Your task to perform on an android device: check google app version Image 0: 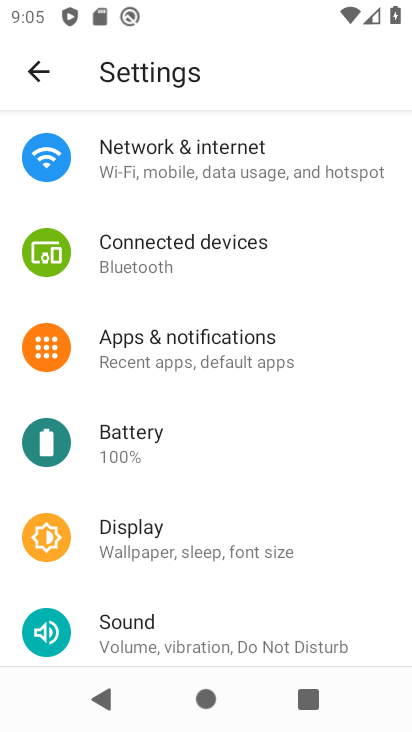
Step 0: drag from (237, 592) to (248, 256)
Your task to perform on an android device: check google app version Image 1: 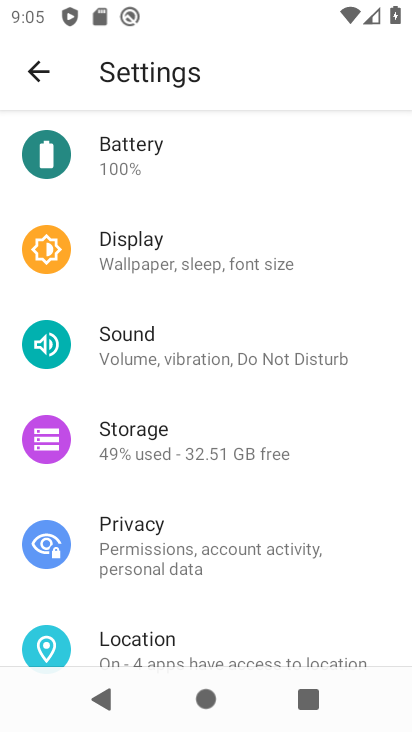
Step 1: drag from (256, 600) to (283, 187)
Your task to perform on an android device: check google app version Image 2: 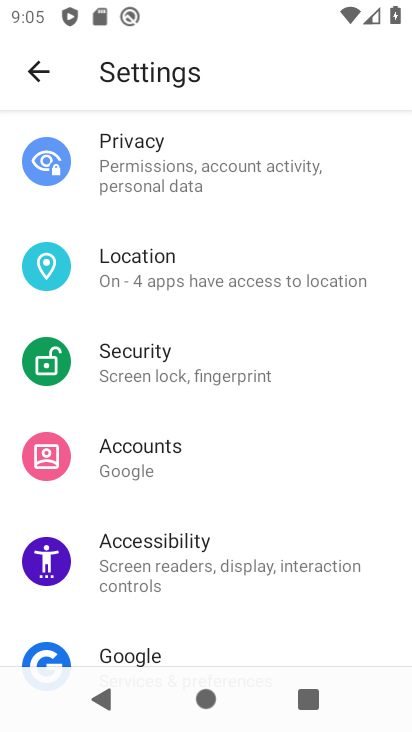
Step 2: drag from (175, 600) to (174, 276)
Your task to perform on an android device: check google app version Image 3: 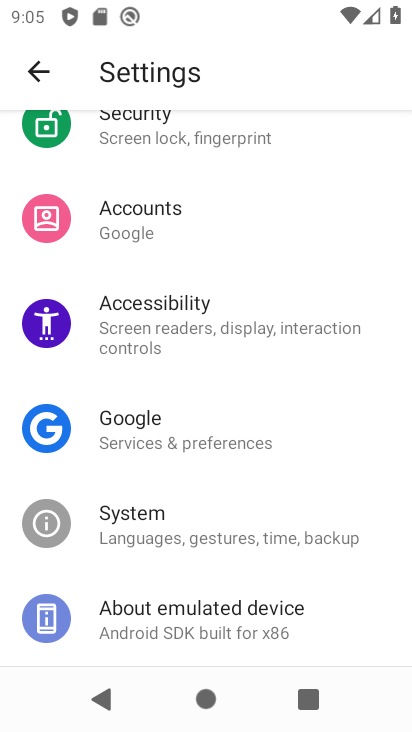
Step 3: press home button
Your task to perform on an android device: check google app version Image 4: 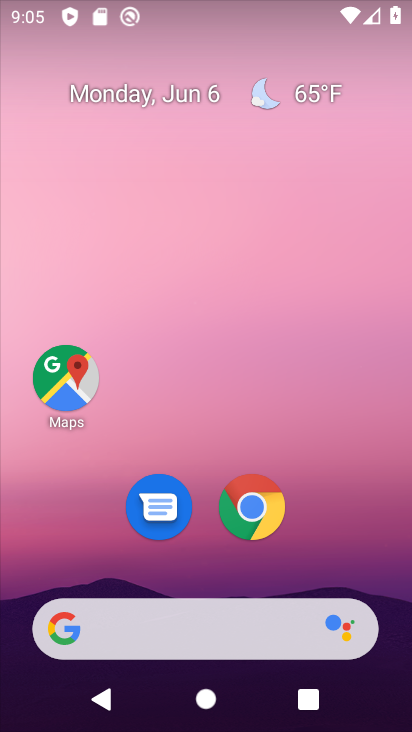
Step 4: drag from (202, 544) to (213, 226)
Your task to perform on an android device: check google app version Image 5: 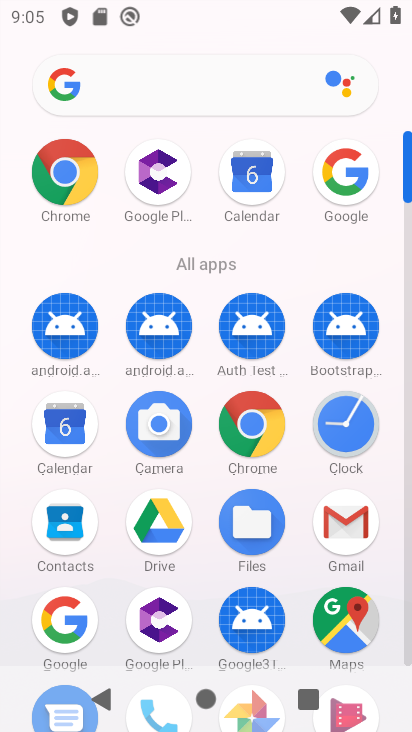
Step 5: click (63, 615)
Your task to perform on an android device: check google app version Image 6: 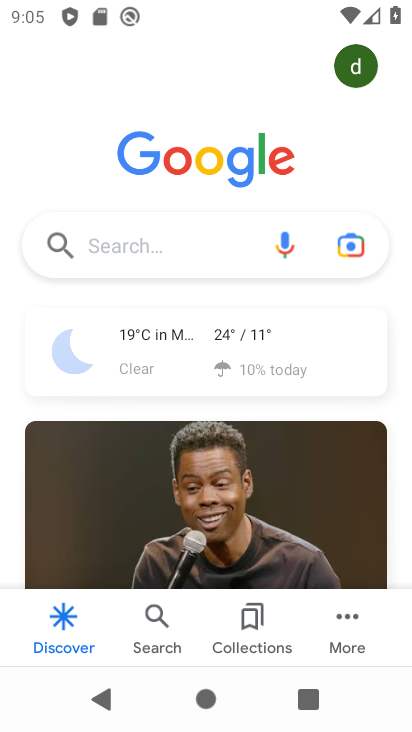
Step 6: click (321, 619)
Your task to perform on an android device: check google app version Image 7: 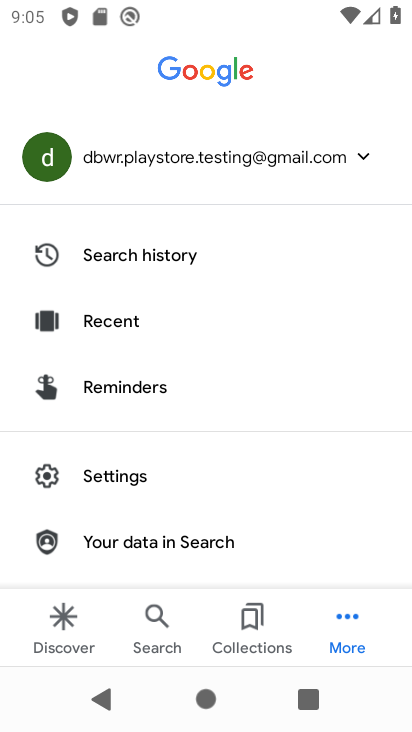
Step 7: drag from (219, 504) to (232, 317)
Your task to perform on an android device: check google app version Image 8: 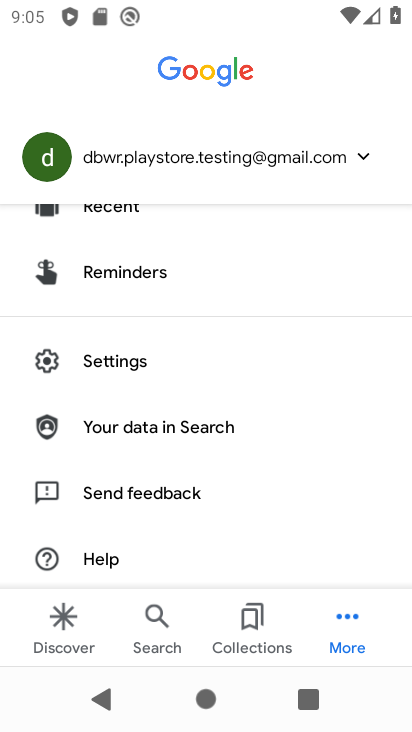
Step 8: click (140, 466)
Your task to perform on an android device: check google app version Image 9: 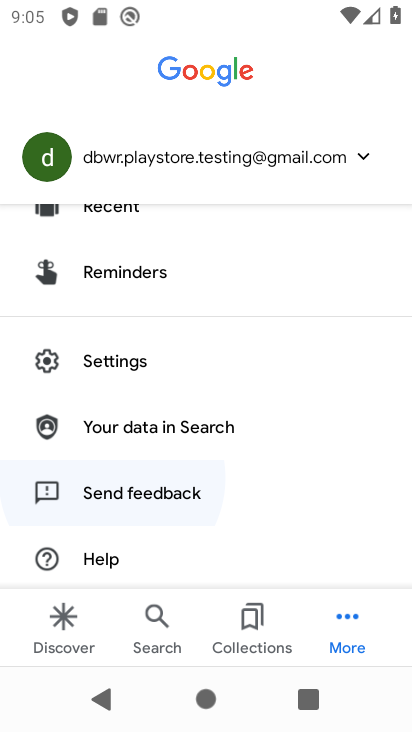
Step 9: drag from (141, 465) to (182, 210)
Your task to perform on an android device: check google app version Image 10: 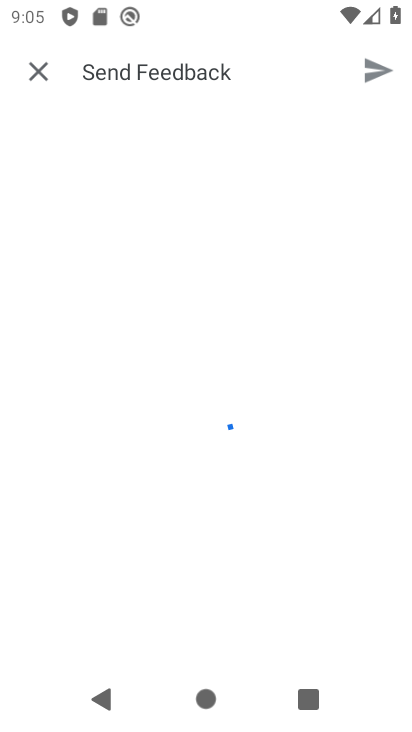
Step 10: click (41, 71)
Your task to perform on an android device: check google app version Image 11: 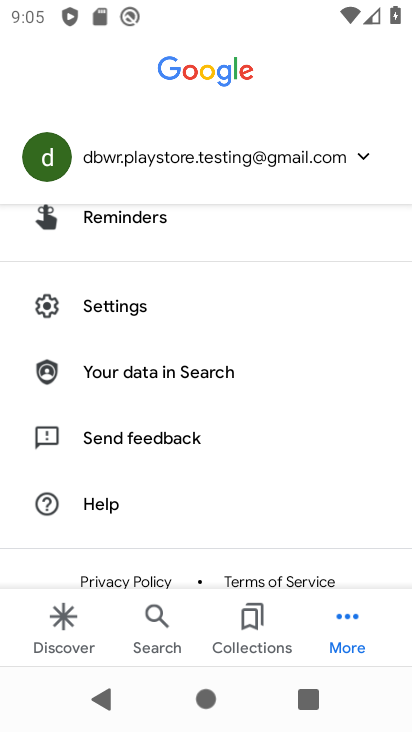
Step 11: drag from (149, 536) to (188, 312)
Your task to perform on an android device: check google app version Image 12: 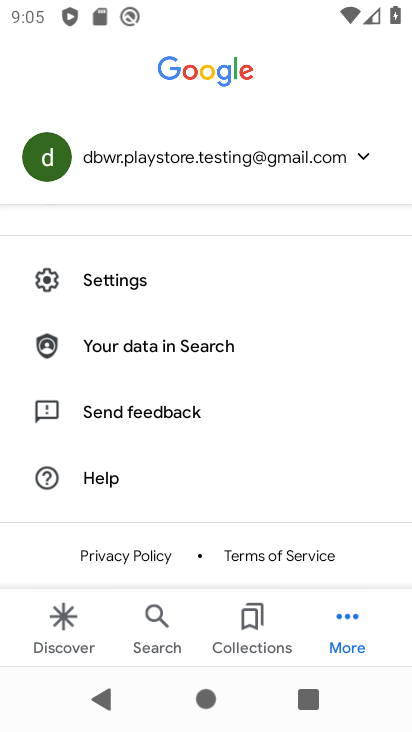
Step 12: drag from (198, 311) to (220, 394)
Your task to perform on an android device: check google app version Image 13: 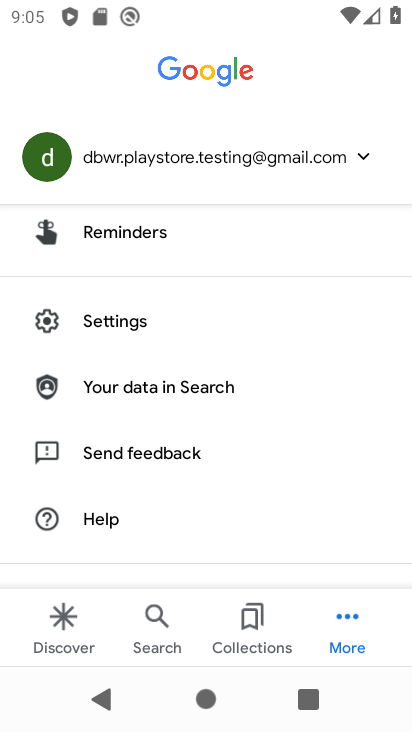
Step 13: click (112, 313)
Your task to perform on an android device: check google app version Image 14: 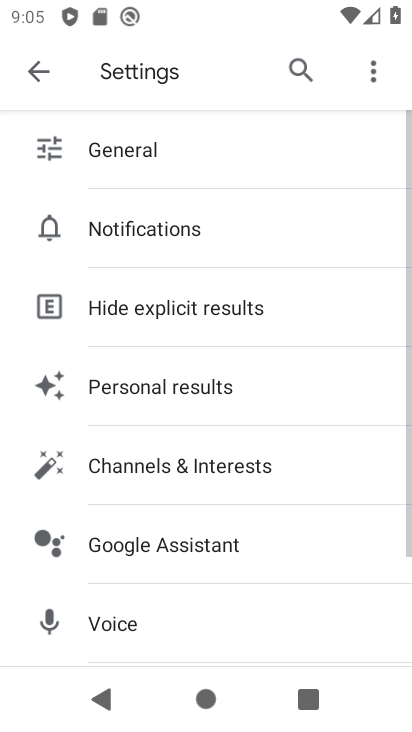
Step 14: drag from (176, 603) to (222, 281)
Your task to perform on an android device: check google app version Image 15: 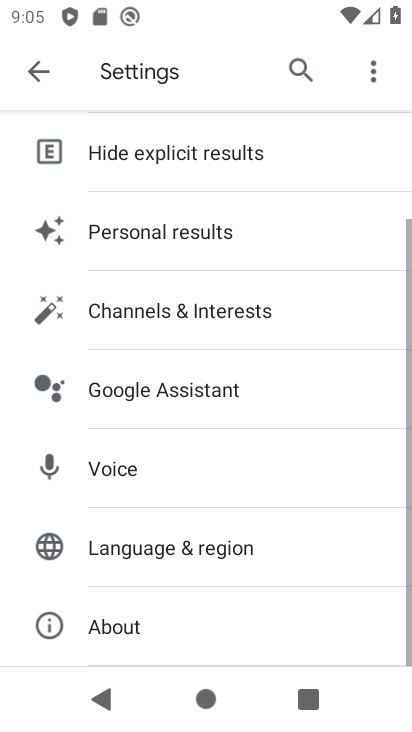
Step 15: click (164, 620)
Your task to perform on an android device: check google app version Image 16: 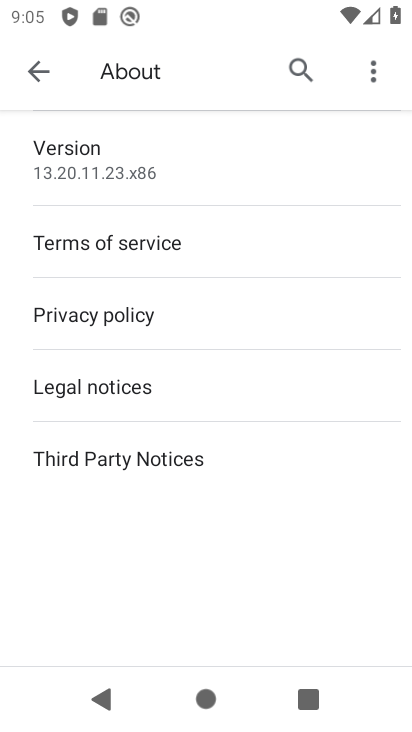
Step 16: task complete